Your task to perform on an android device: read, delete, or share a saved page in the chrome app Image 0: 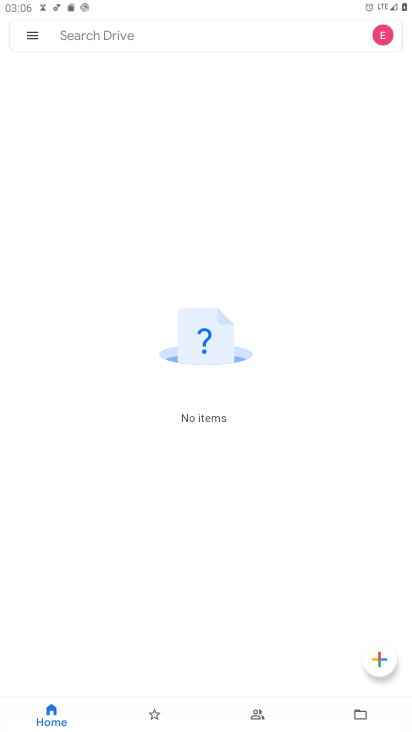
Step 0: press home button
Your task to perform on an android device: read, delete, or share a saved page in the chrome app Image 1: 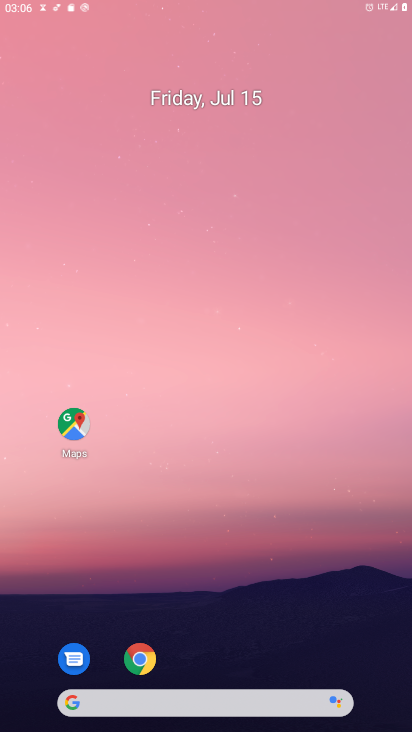
Step 1: drag from (221, 633) to (235, 132)
Your task to perform on an android device: read, delete, or share a saved page in the chrome app Image 2: 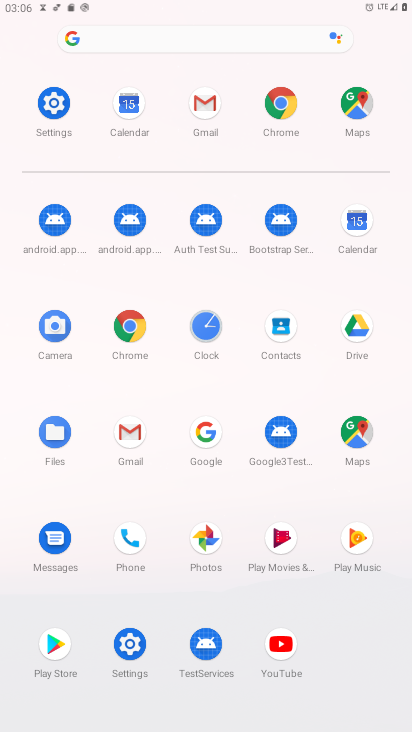
Step 2: click (292, 89)
Your task to perform on an android device: read, delete, or share a saved page in the chrome app Image 3: 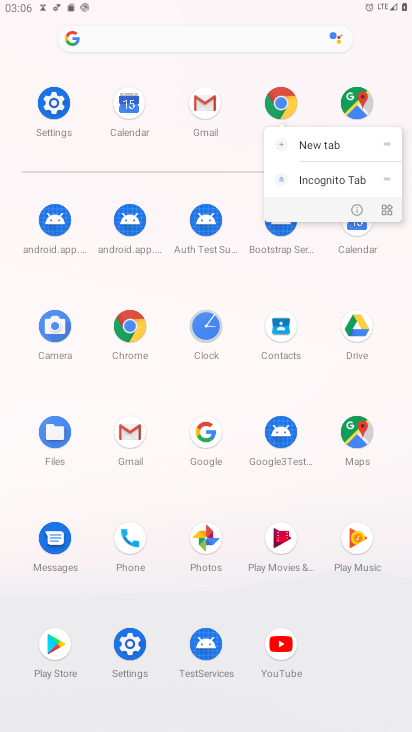
Step 3: click (292, 111)
Your task to perform on an android device: read, delete, or share a saved page in the chrome app Image 4: 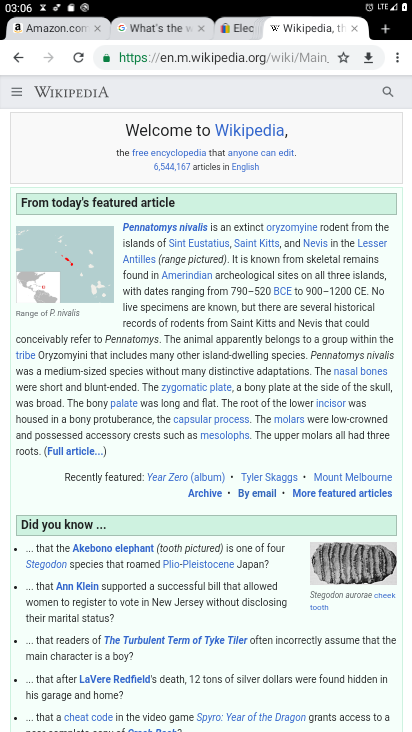
Step 4: click (397, 52)
Your task to perform on an android device: read, delete, or share a saved page in the chrome app Image 5: 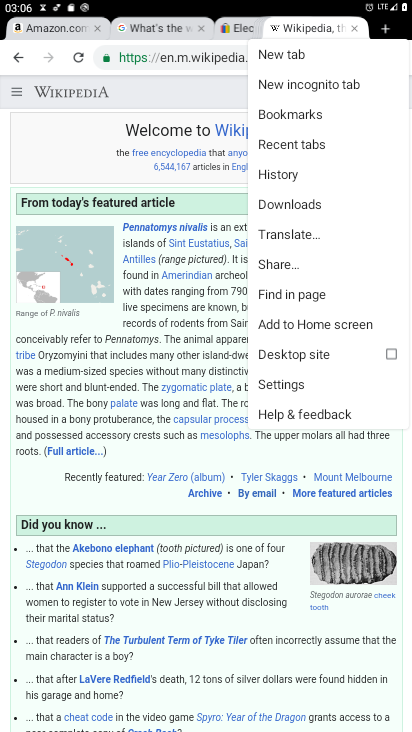
Step 5: click (299, 296)
Your task to perform on an android device: read, delete, or share a saved page in the chrome app Image 6: 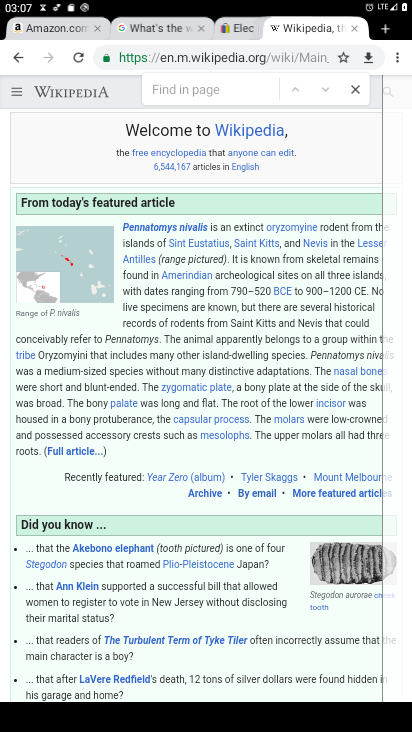
Step 6: click (73, 141)
Your task to perform on an android device: read, delete, or share a saved page in the chrome app Image 7: 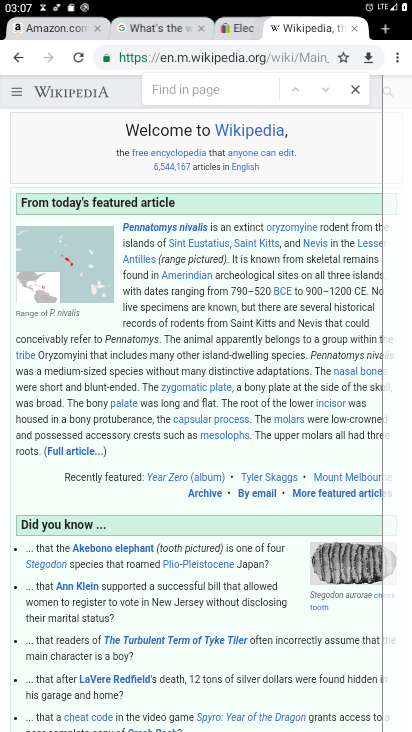
Step 7: task complete